Your task to perform on an android device: open app "Facebook Lite" (install if not already installed) and enter user name: "suppers@inbox.com" and password: "downplayed" Image 0: 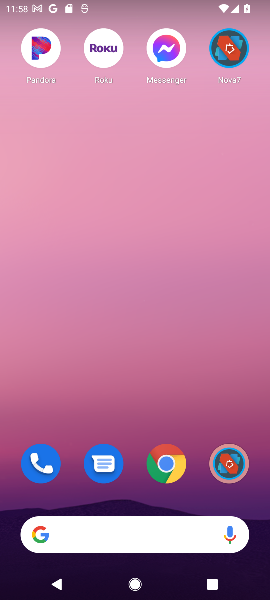
Step 0: drag from (122, 525) to (149, 51)
Your task to perform on an android device: open app "Facebook Lite" (install if not already installed) and enter user name: "suppers@inbox.com" and password: "downplayed" Image 1: 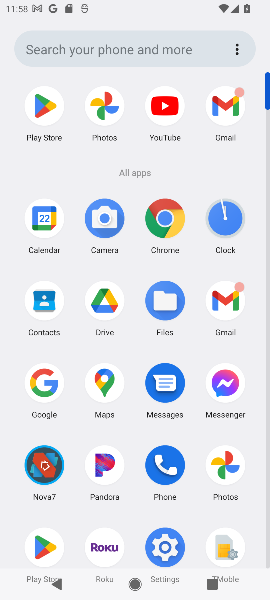
Step 1: drag from (74, 514) to (74, 170)
Your task to perform on an android device: open app "Facebook Lite" (install if not already installed) and enter user name: "suppers@inbox.com" and password: "downplayed" Image 2: 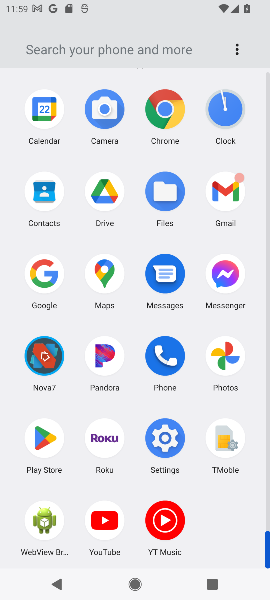
Step 2: click (35, 442)
Your task to perform on an android device: open app "Facebook Lite" (install if not already installed) and enter user name: "suppers@inbox.com" and password: "downplayed" Image 3: 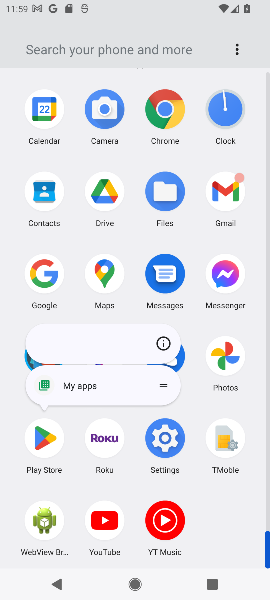
Step 3: click (43, 442)
Your task to perform on an android device: open app "Facebook Lite" (install if not already installed) and enter user name: "suppers@inbox.com" and password: "downplayed" Image 4: 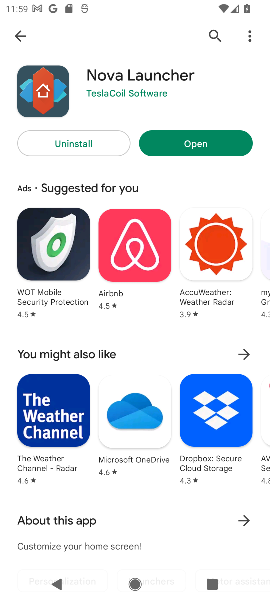
Step 4: click (240, 33)
Your task to perform on an android device: open app "Facebook Lite" (install if not already installed) and enter user name: "suppers@inbox.com" and password: "downplayed" Image 5: 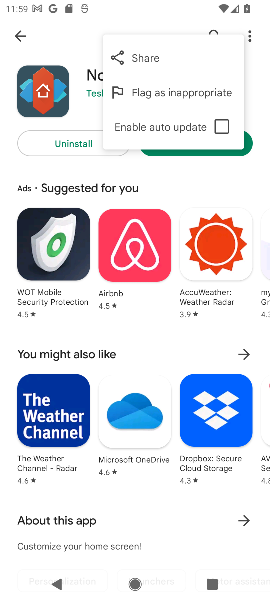
Step 5: click (72, 54)
Your task to perform on an android device: open app "Facebook Lite" (install if not already installed) and enter user name: "suppers@inbox.com" and password: "downplayed" Image 6: 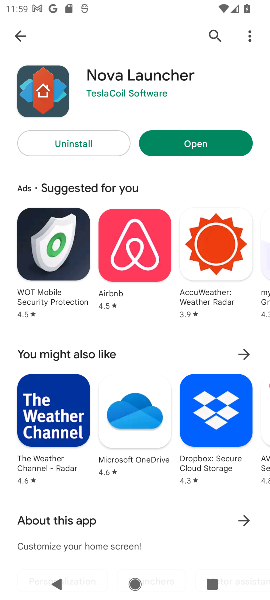
Step 6: click (213, 31)
Your task to perform on an android device: open app "Facebook Lite" (install if not already installed) and enter user name: "suppers@inbox.com" and password: "downplayed" Image 7: 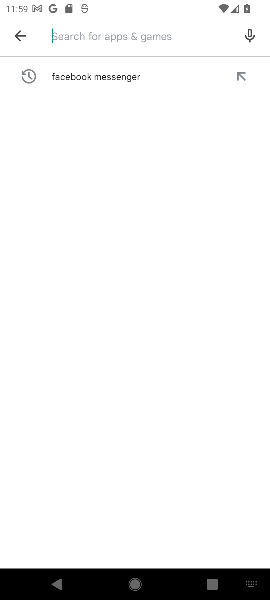
Step 7: type "Facebook Lite"
Your task to perform on an android device: open app "Facebook Lite" (install if not already installed) and enter user name: "suppers@inbox.com" and password: "downplayed" Image 8: 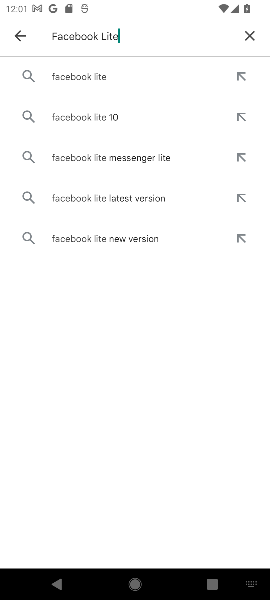
Step 8: click (97, 73)
Your task to perform on an android device: open app "Facebook Lite" (install if not already installed) and enter user name: "suppers@inbox.com" and password: "downplayed" Image 9: 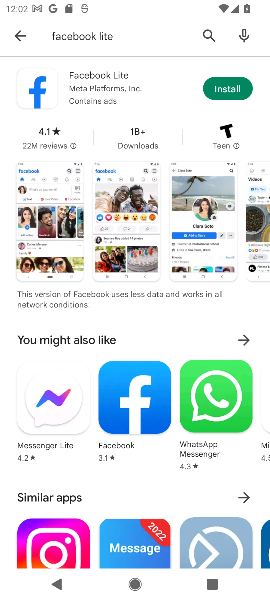
Step 9: click (220, 91)
Your task to perform on an android device: open app "Facebook Lite" (install if not already installed) and enter user name: "suppers@inbox.com" and password: "downplayed" Image 10: 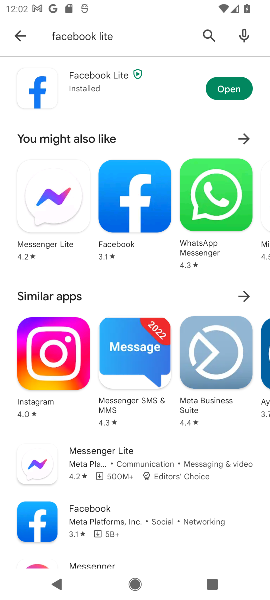
Step 10: click (228, 88)
Your task to perform on an android device: open app "Facebook Lite" (install if not already installed) and enter user name: "suppers@inbox.com" and password: "downplayed" Image 11: 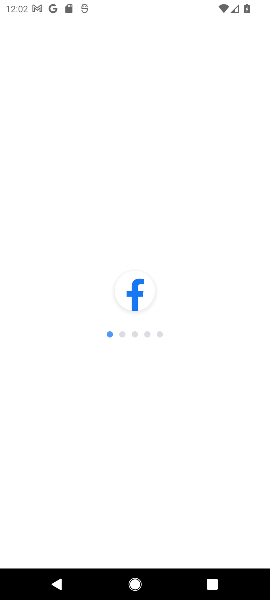
Step 11: task complete